Your task to perform on an android device: Go to Android settings Image 0: 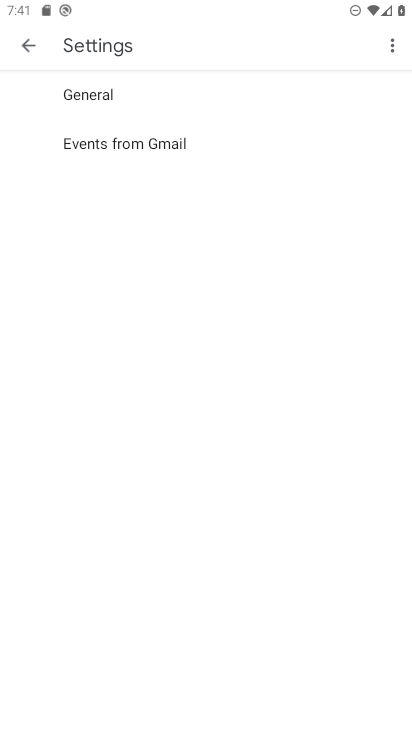
Step 0: press home button
Your task to perform on an android device: Go to Android settings Image 1: 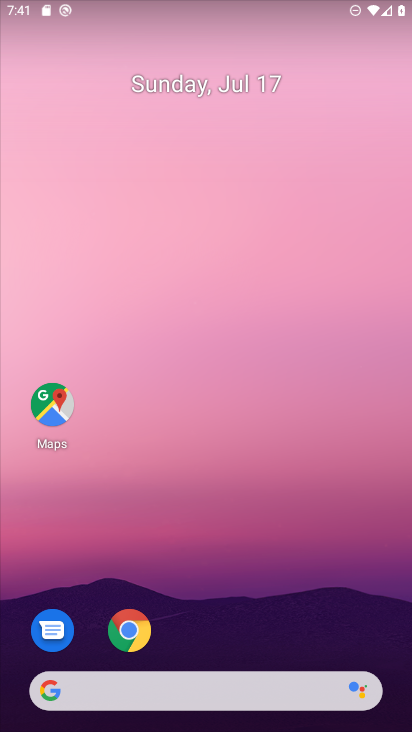
Step 1: drag from (249, 646) to (184, 12)
Your task to perform on an android device: Go to Android settings Image 2: 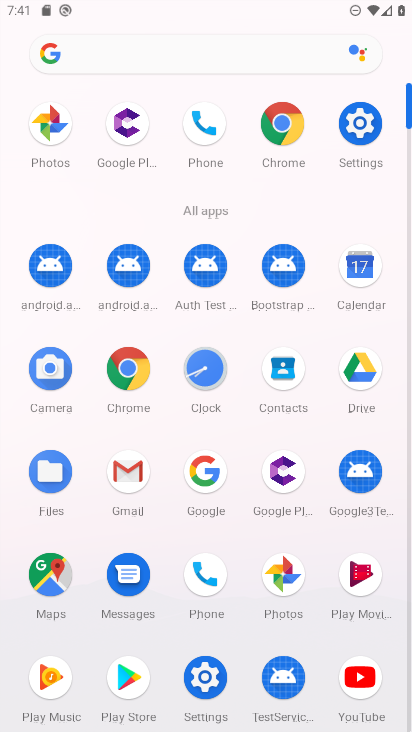
Step 2: click (354, 115)
Your task to perform on an android device: Go to Android settings Image 3: 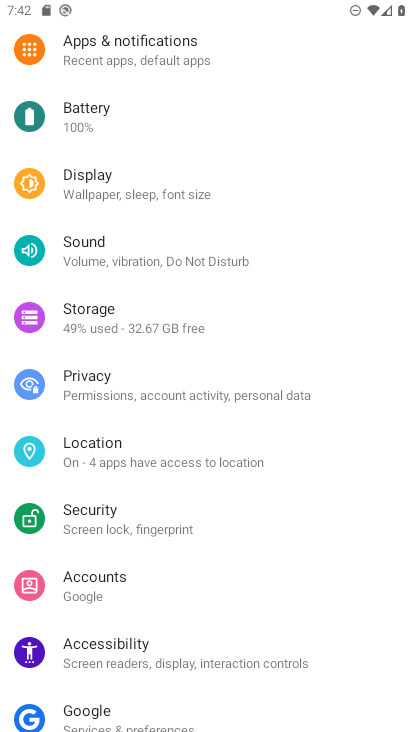
Step 3: task complete